Your task to perform on an android device: open app "NewsBreak: Local News & Alerts" (install if not already installed) and go to login screen Image 0: 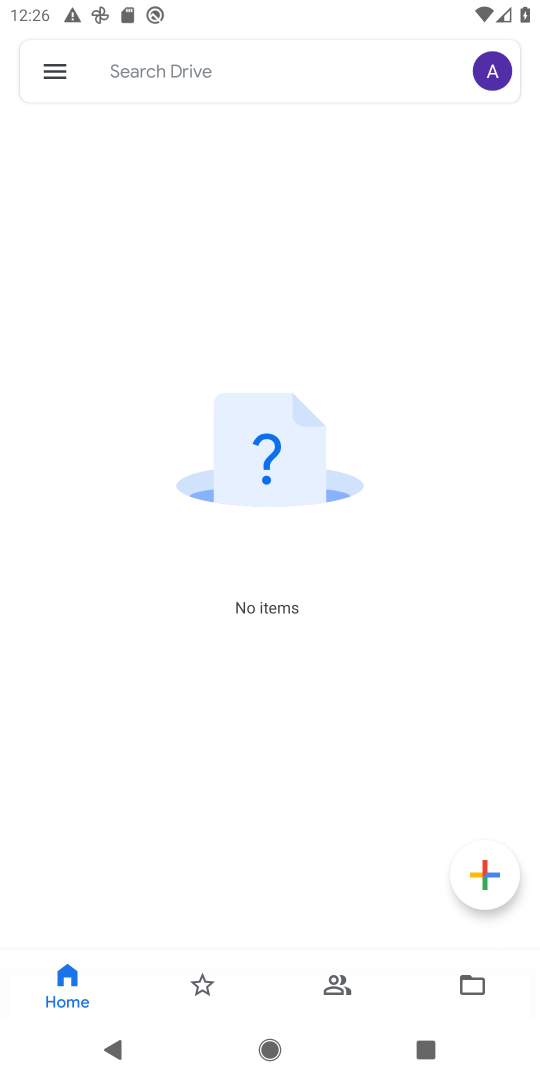
Step 0: press home button
Your task to perform on an android device: open app "NewsBreak: Local News & Alerts" (install if not already installed) and go to login screen Image 1: 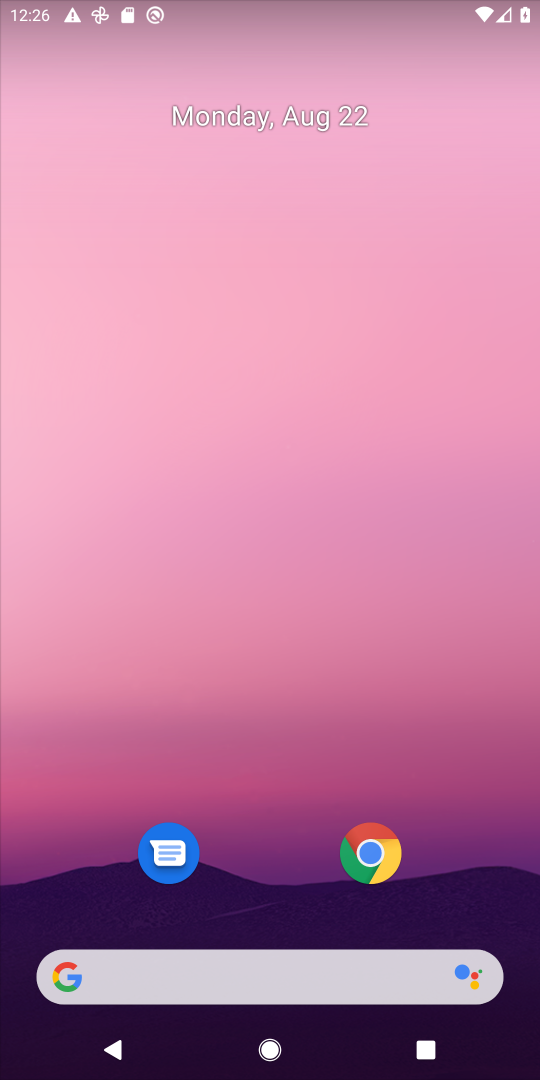
Step 1: drag from (251, 795) to (259, 459)
Your task to perform on an android device: open app "NewsBreak: Local News & Alerts" (install if not already installed) and go to login screen Image 2: 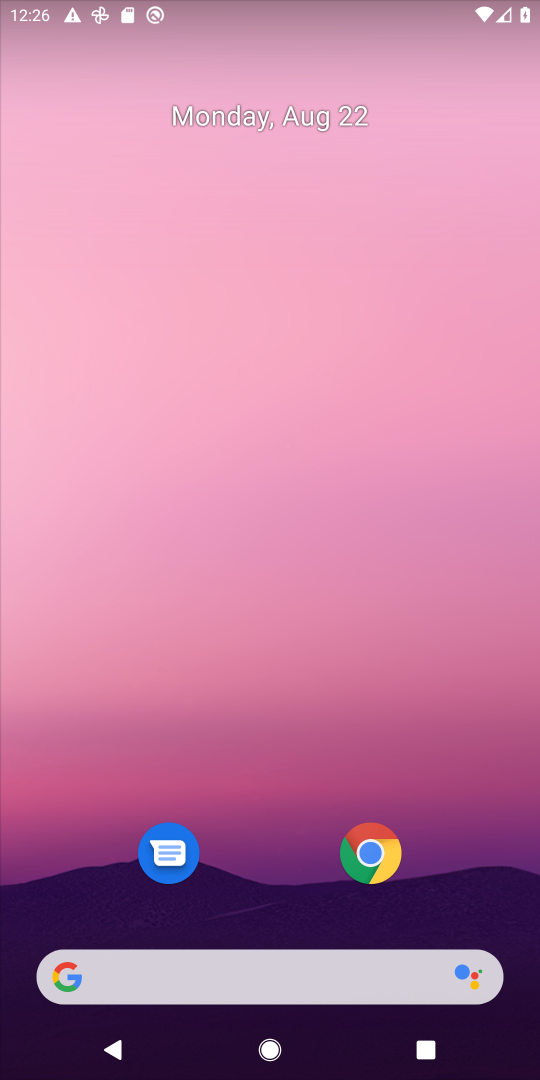
Step 2: drag from (231, 886) to (398, 0)
Your task to perform on an android device: open app "NewsBreak: Local News & Alerts" (install if not already installed) and go to login screen Image 3: 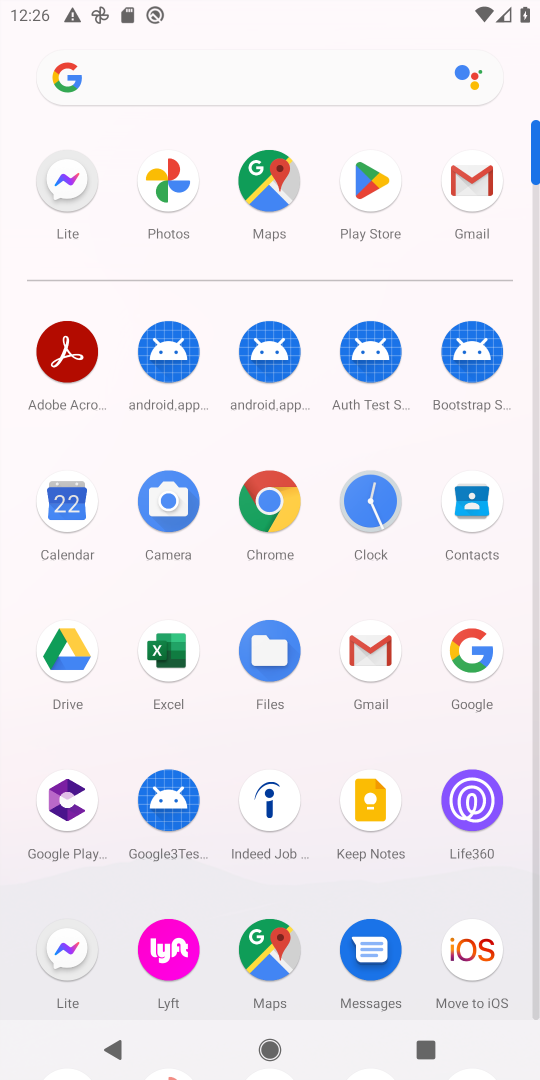
Step 3: click (374, 188)
Your task to perform on an android device: open app "NewsBreak: Local News & Alerts" (install if not already installed) and go to login screen Image 4: 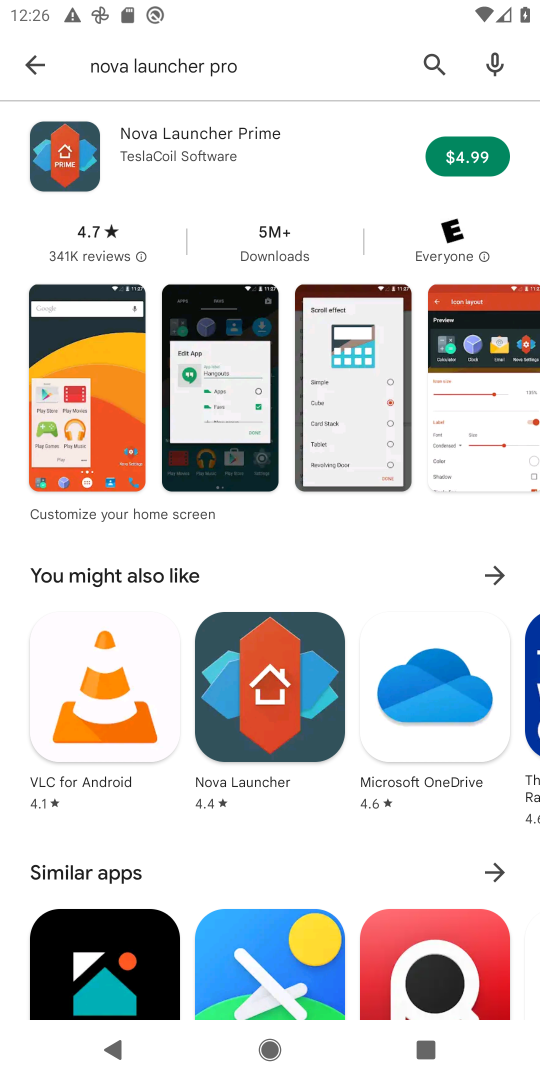
Step 4: click (30, 64)
Your task to perform on an android device: open app "NewsBreak: Local News & Alerts" (install if not already installed) and go to login screen Image 5: 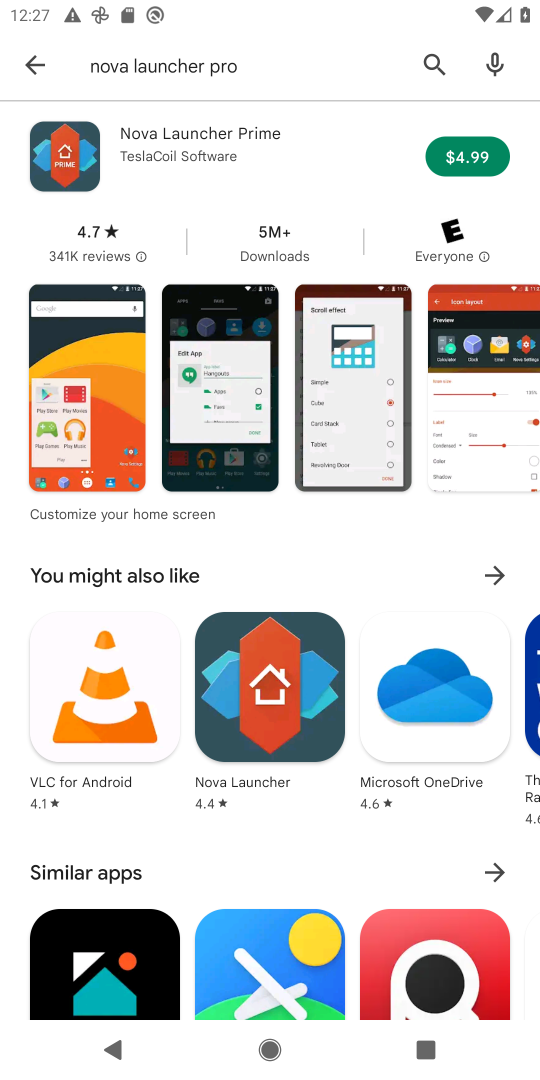
Step 5: click (45, 68)
Your task to perform on an android device: open app "NewsBreak: Local News & Alerts" (install if not already installed) and go to login screen Image 6: 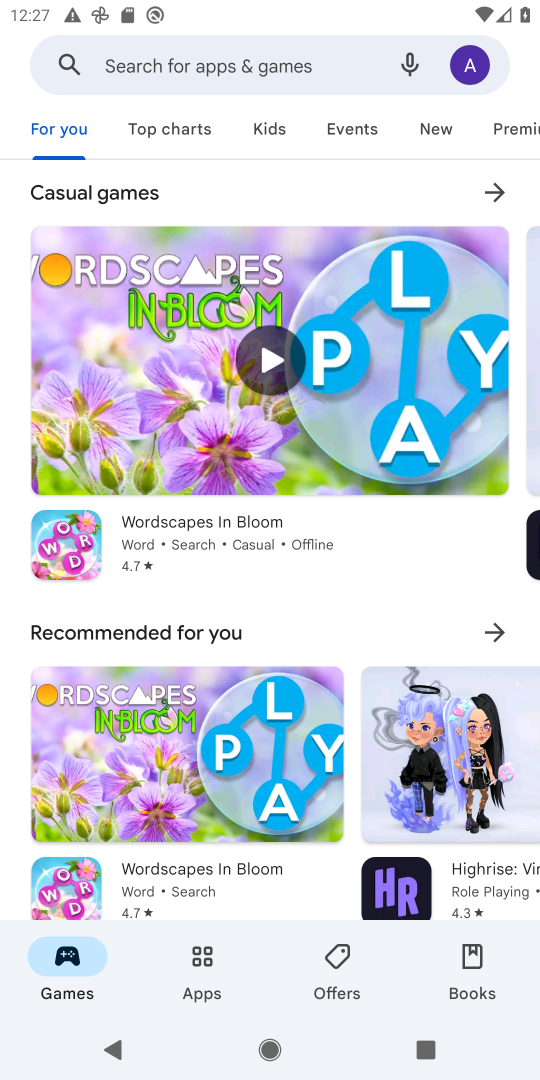
Step 6: click (268, 51)
Your task to perform on an android device: open app "NewsBreak: Local News & Alerts" (install if not already installed) and go to login screen Image 7: 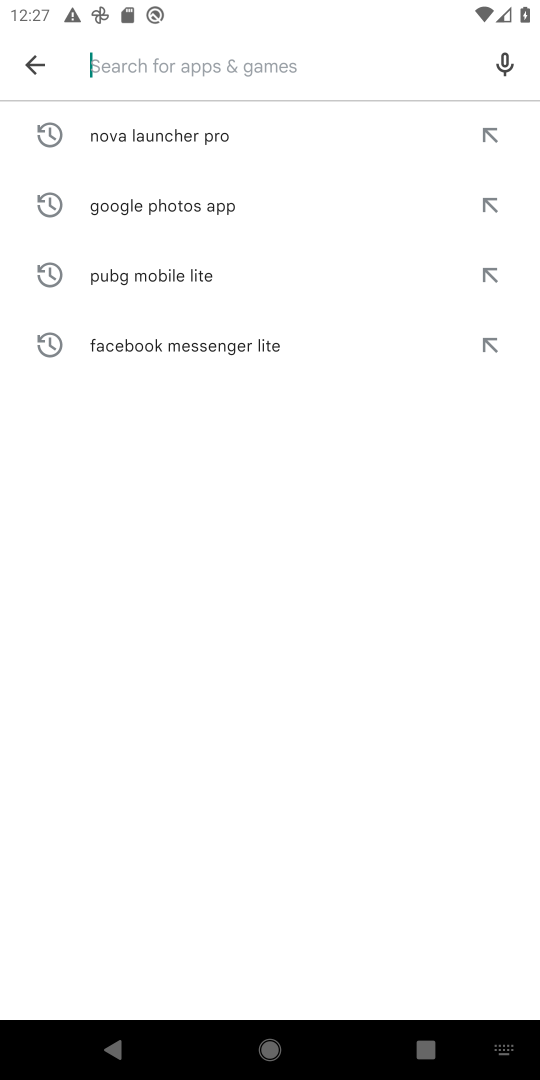
Step 7: type "NewsBreak: Local News & Alerts "
Your task to perform on an android device: open app "NewsBreak: Local News & Alerts" (install if not already installed) and go to login screen Image 8: 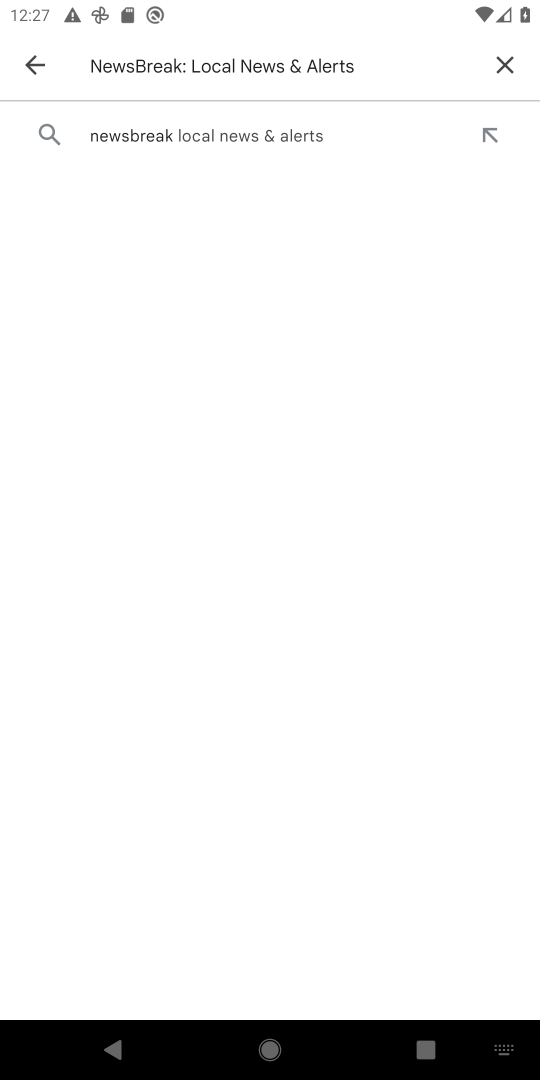
Step 8: click (210, 147)
Your task to perform on an android device: open app "NewsBreak: Local News & Alerts" (install if not already installed) and go to login screen Image 9: 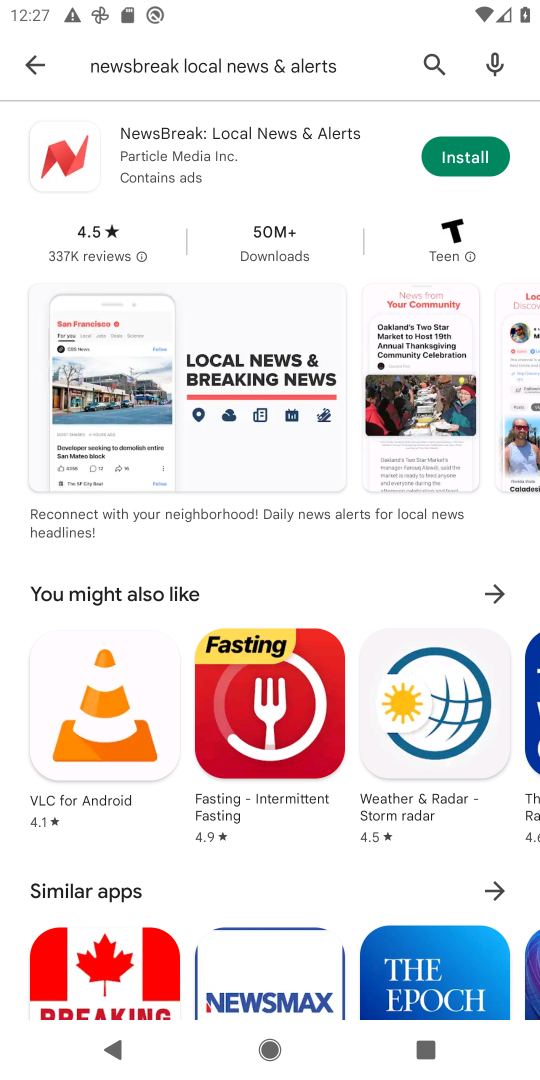
Step 9: click (467, 154)
Your task to perform on an android device: open app "NewsBreak: Local News & Alerts" (install if not already installed) and go to login screen Image 10: 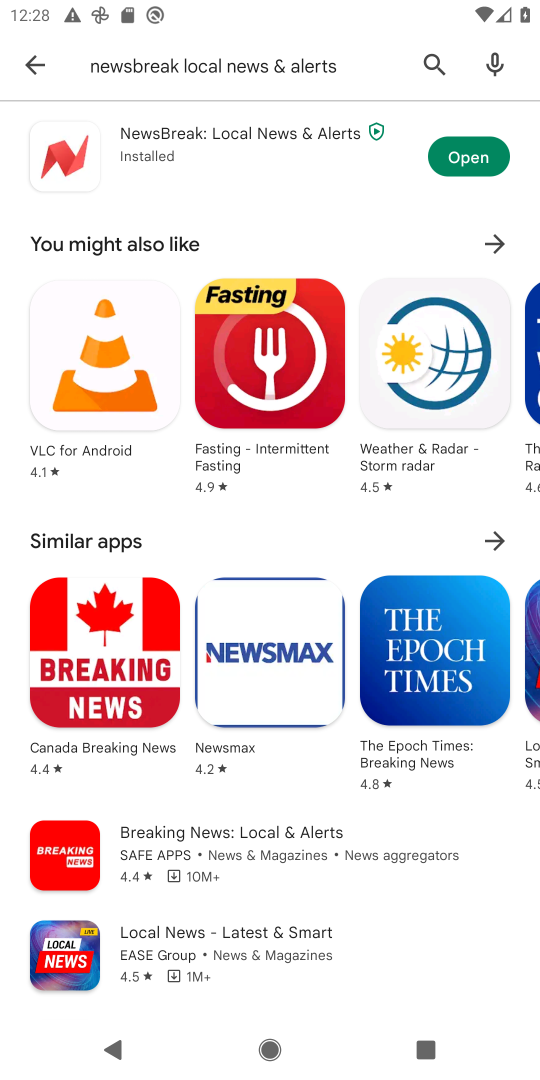
Step 10: click (462, 161)
Your task to perform on an android device: open app "NewsBreak: Local News & Alerts" (install if not already installed) and go to login screen Image 11: 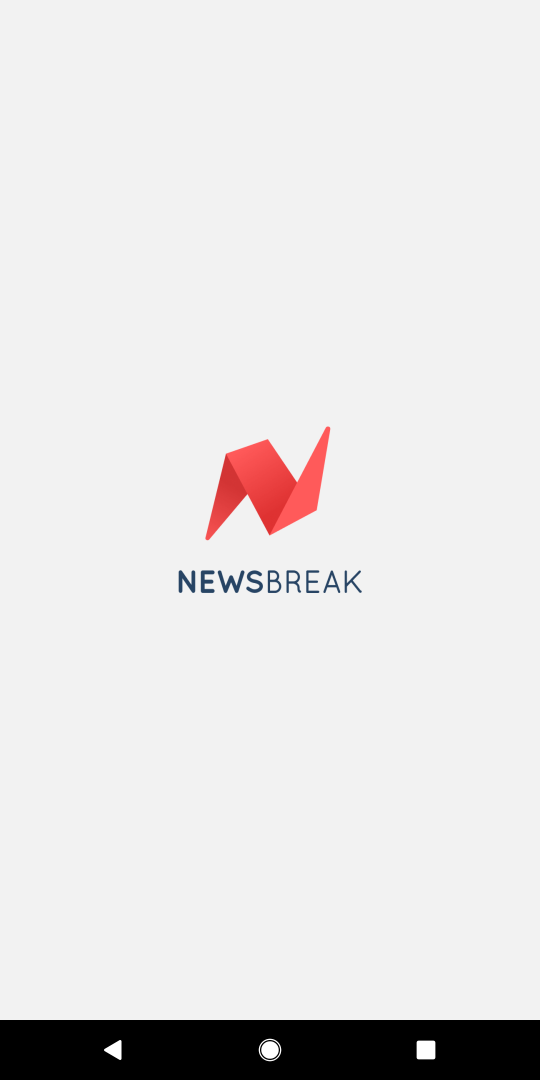
Step 11: task complete